Your task to perform on an android device: Open the stopwatch Image 0: 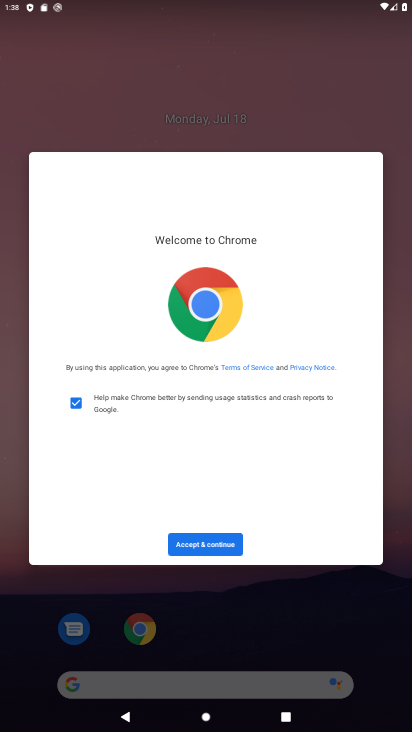
Step 0: press home button
Your task to perform on an android device: Open the stopwatch Image 1: 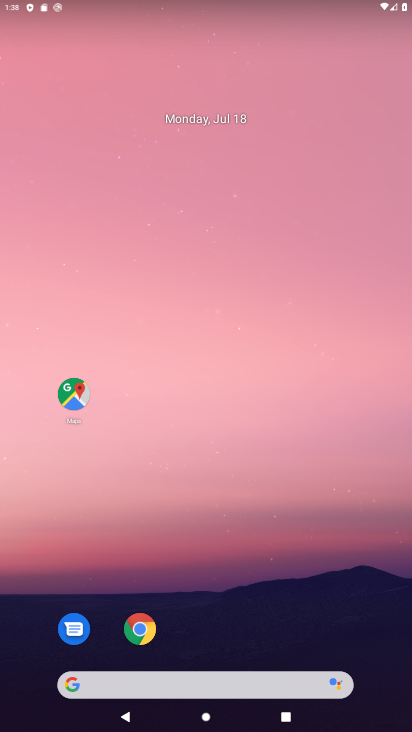
Step 1: drag from (222, 665) to (186, 205)
Your task to perform on an android device: Open the stopwatch Image 2: 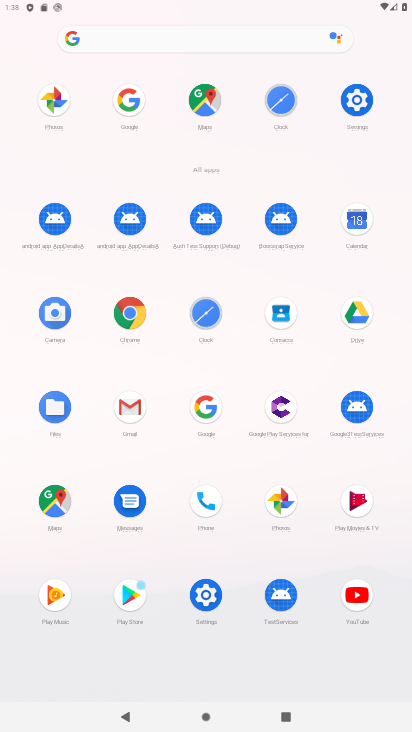
Step 2: click (270, 106)
Your task to perform on an android device: Open the stopwatch Image 3: 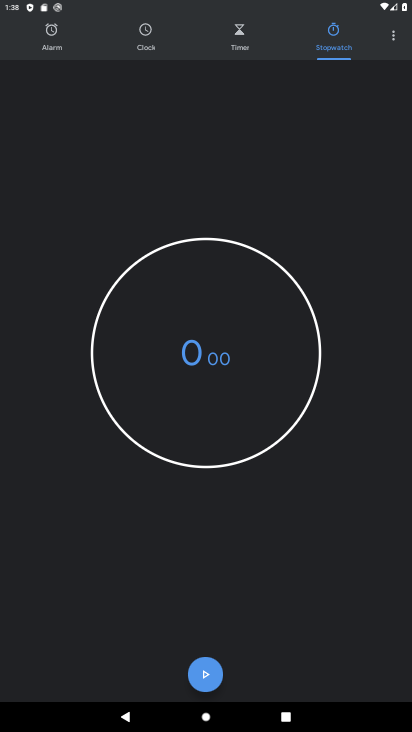
Step 3: task complete